Your task to perform on an android device: refresh tabs in the chrome app Image 0: 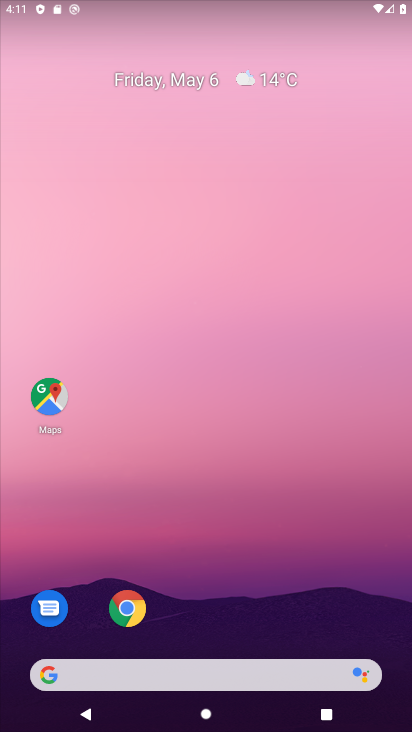
Step 0: drag from (249, 309) to (281, 143)
Your task to perform on an android device: refresh tabs in the chrome app Image 1: 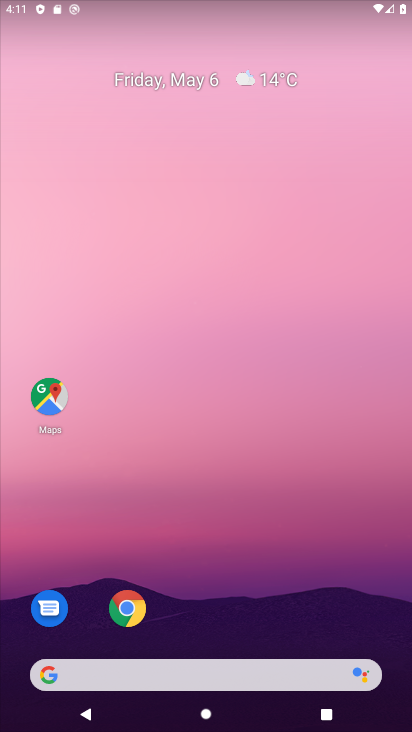
Step 1: drag from (186, 679) to (294, 188)
Your task to perform on an android device: refresh tabs in the chrome app Image 2: 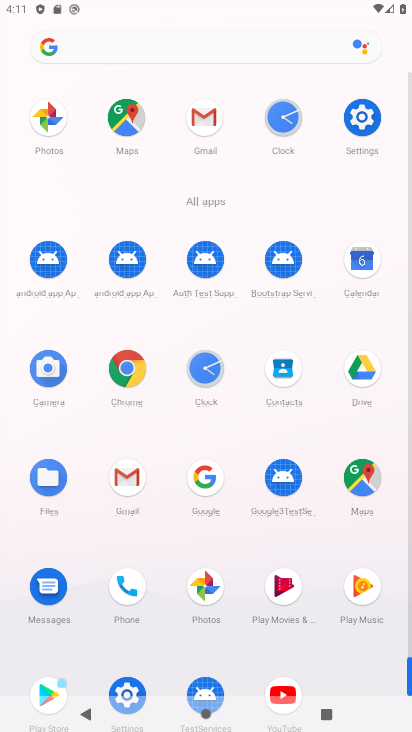
Step 2: drag from (183, 660) to (240, 400)
Your task to perform on an android device: refresh tabs in the chrome app Image 3: 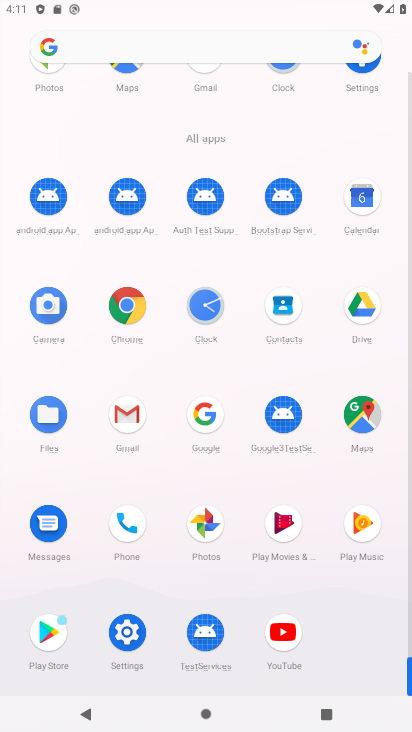
Step 3: click (127, 317)
Your task to perform on an android device: refresh tabs in the chrome app Image 4: 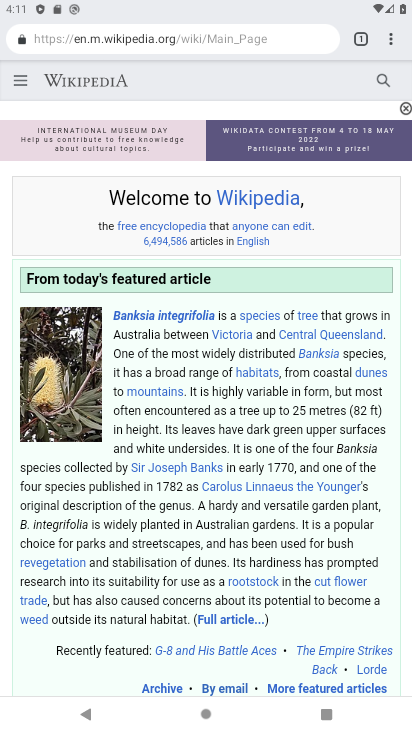
Step 4: click (388, 41)
Your task to perform on an android device: refresh tabs in the chrome app Image 5: 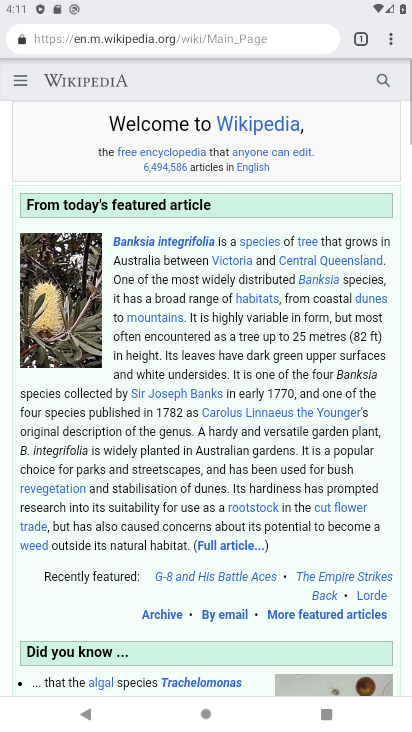
Step 5: click (388, 41)
Your task to perform on an android device: refresh tabs in the chrome app Image 6: 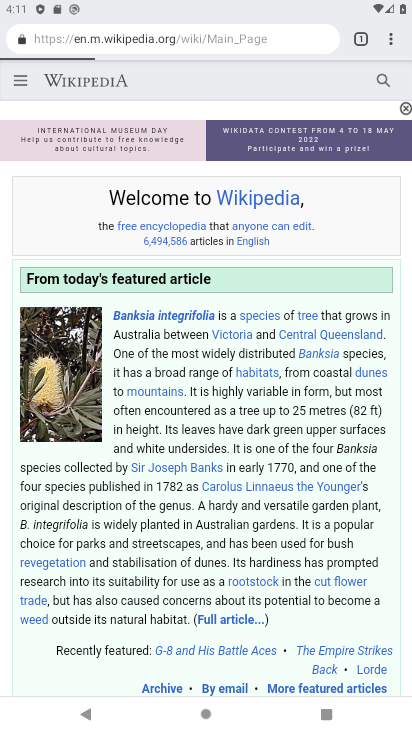
Step 6: click (385, 41)
Your task to perform on an android device: refresh tabs in the chrome app Image 7: 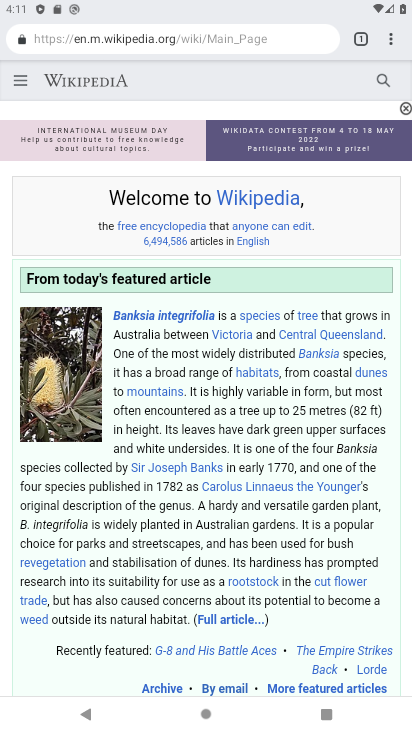
Step 7: task complete